Your task to perform on an android device: Go to settings Image 0: 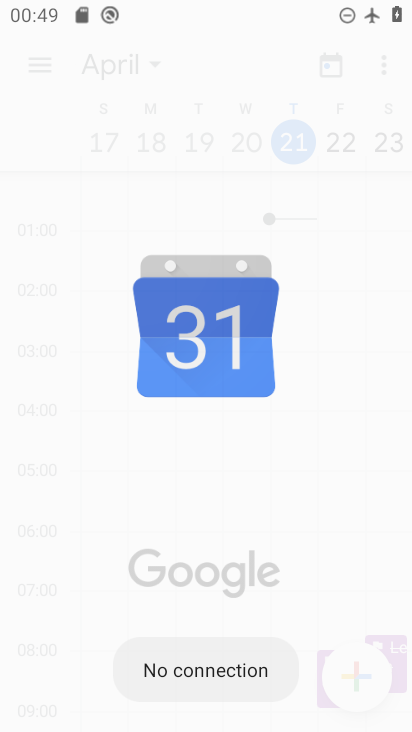
Step 0: click (240, 593)
Your task to perform on an android device: Go to settings Image 1: 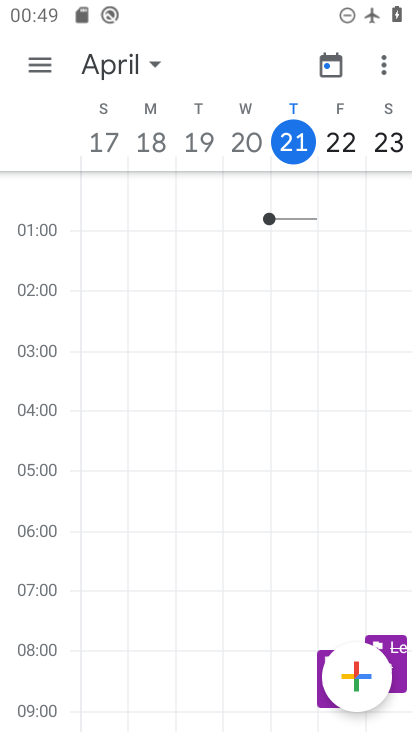
Step 1: press home button
Your task to perform on an android device: Go to settings Image 2: 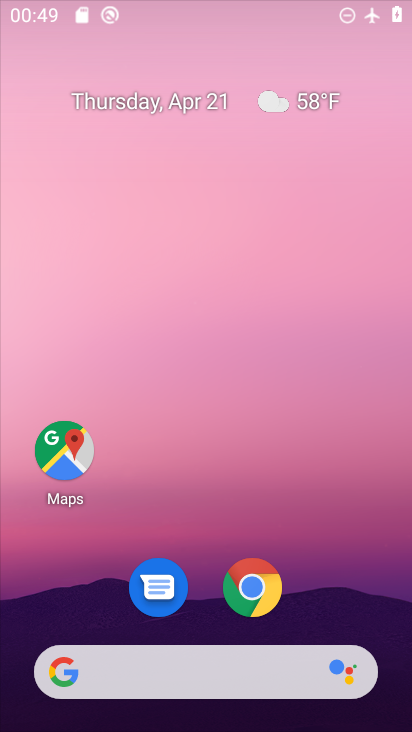
Step 2: drag from (202, 609) to (301, 13)
Your task to perform on an android device: Go to settings Image 3: 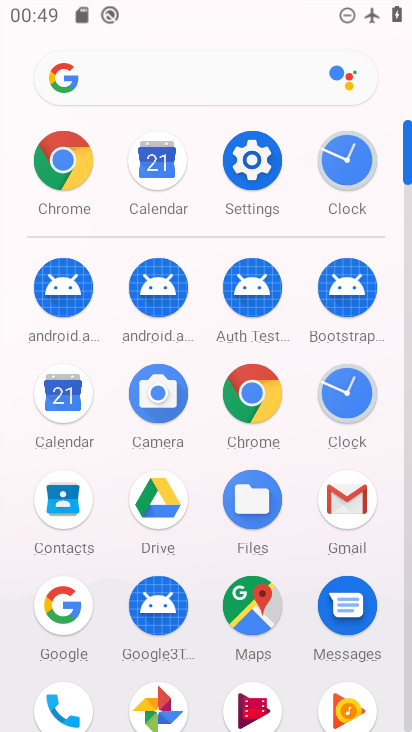
Step 3: click (246, 168)
Your task to perform on an android device: Go to settings Image 4: 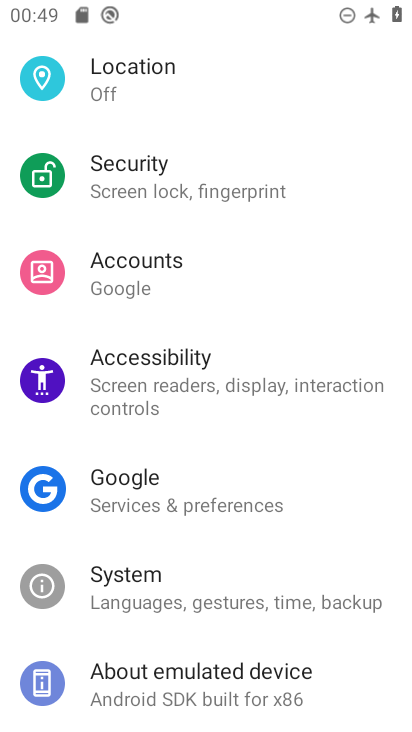
Step 4: task complete